Your task to perform on an android device: Do I have any events this weekend? Image 0: 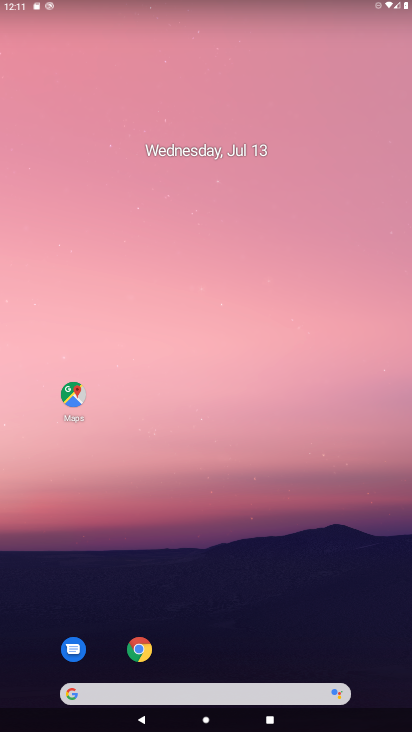
Step 0: drag from (387, 661) to (288, 156)
Your task to perform on an android device: Do I have any events this weekend? Image 1: 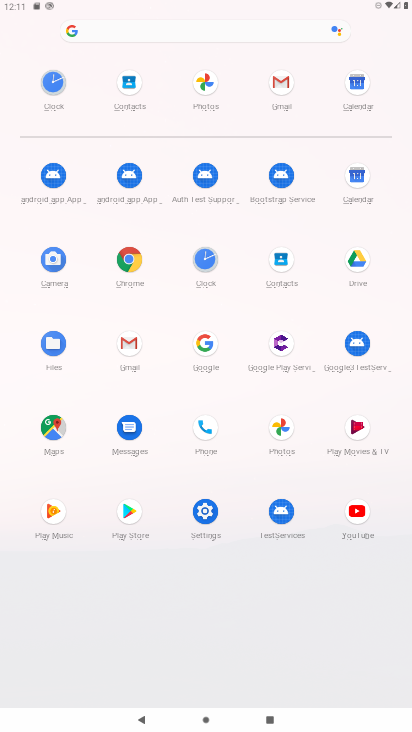
Step 1: click (358, 176)
Your task to perform on an android device: Do I have any events this weekend? Image 2: 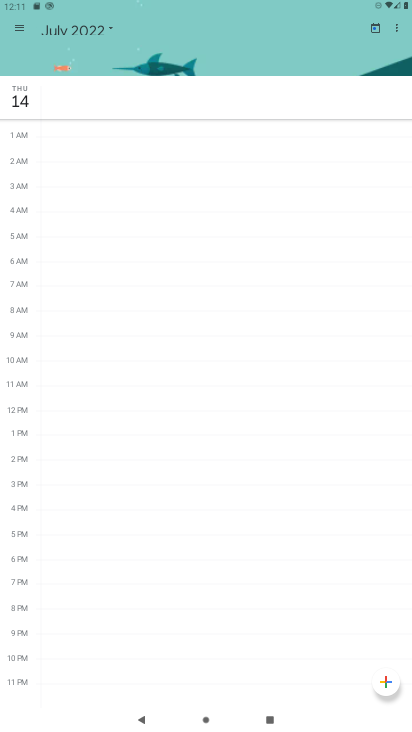
Step 2: click (18, 27)
Your task to perform on an android device: Do I have any events this weekend? Image 3: 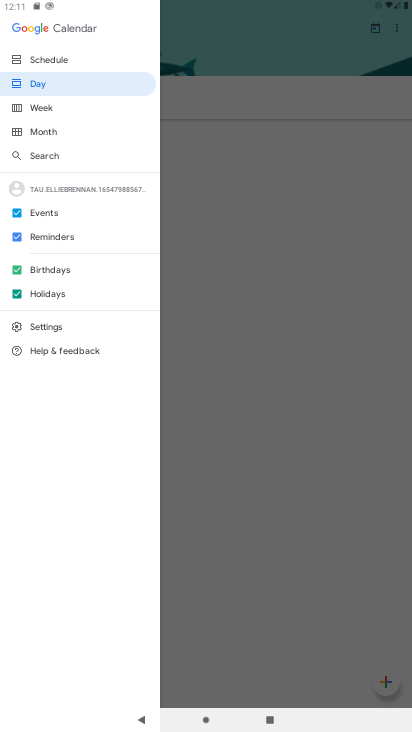
Step 3: click (33, 104)
Your task to perform on an android device: Do I have any events this weekend? Image 4: 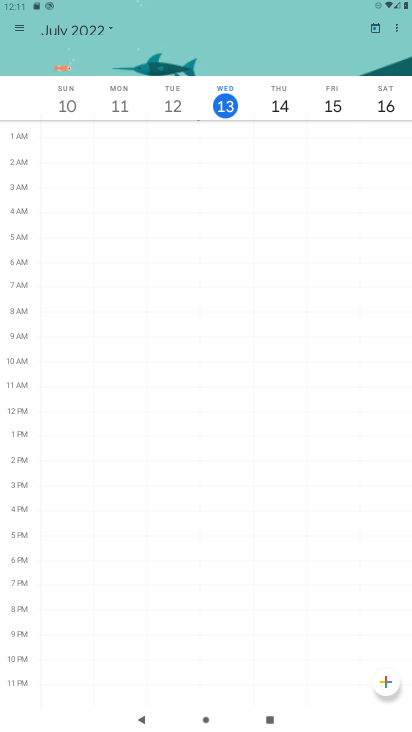
Step 4: task complete